Your task to perform on an android device: Open the web browser Image 0: 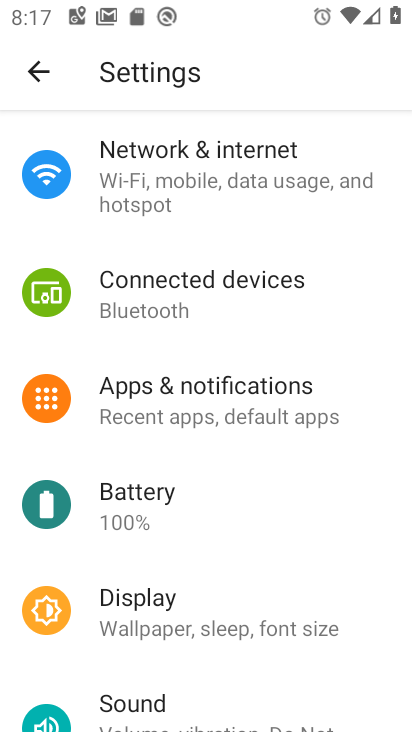
Step 0: press home button
Your task to perform on an android device: Open the web browser Image 1: 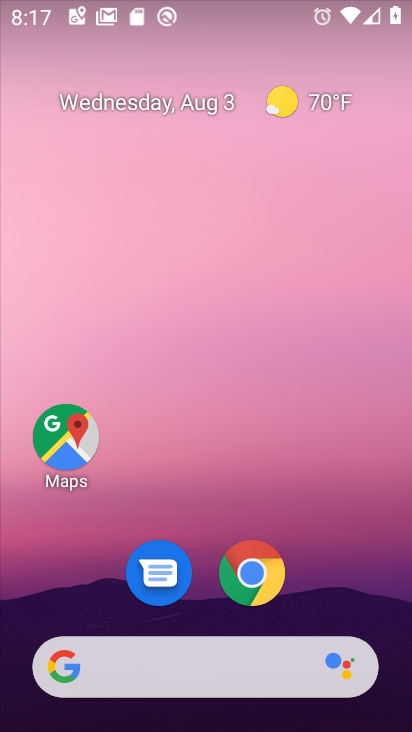
Step 1: click (265, 571)
Your task to perform on an android device: Open the web browser Image 2: 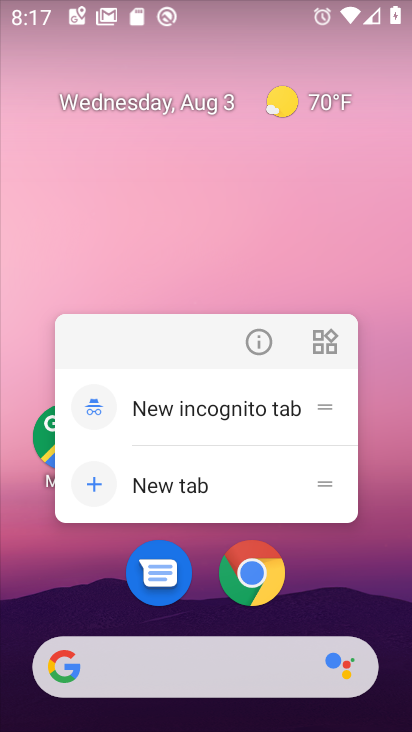
Step 2: click (257, 587)
Your task to perform on an android device: Open the web browser Image 3: 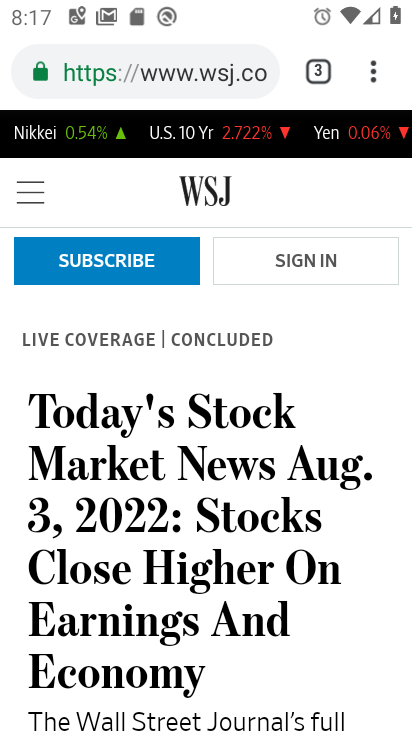
Step 3: task complete